Your task to perform on an android device: toggle javascript in the chrome app Image 0: 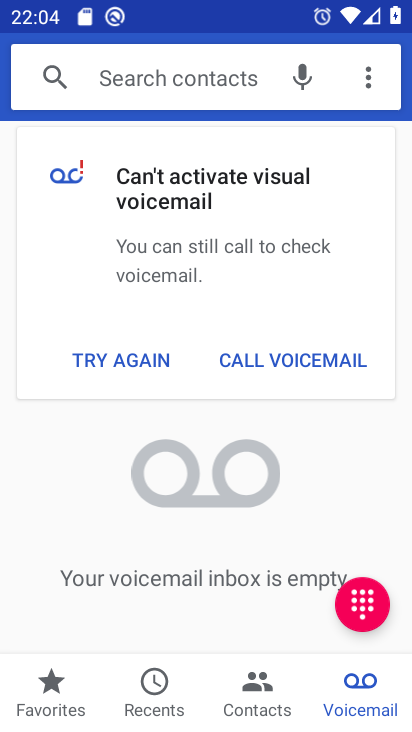
Step 0: press home button
Your task to perform on an android device: toggle javascript in the chrome app Image 1: 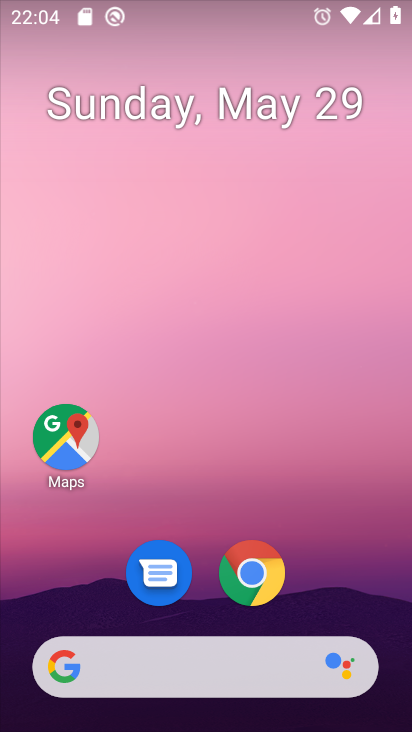
Step 1: click (256, 584)
Your task to perform on an android device: toggle javascript in the chrome app Image 2: 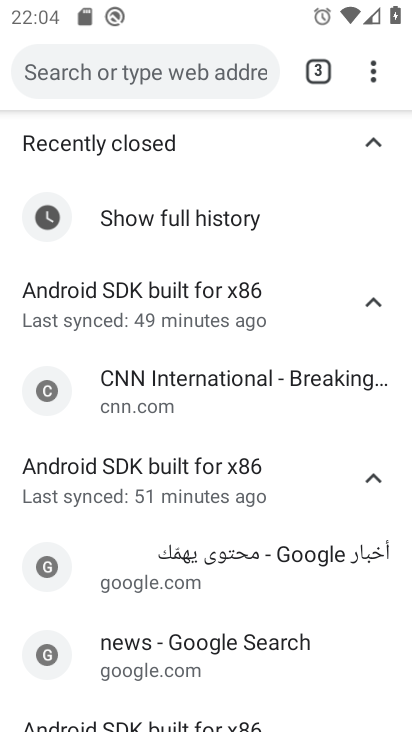
Step 2: click (370, 79)
Your task to perform on an android device: toggle javascript in the chrome app Image 3: 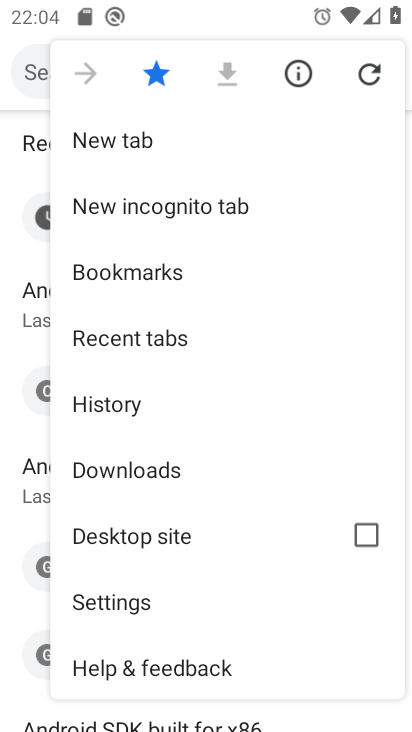
Step 3: click (147, 604)
Your task to perform on an android device: toggle javascript in the chrome app Image 4: 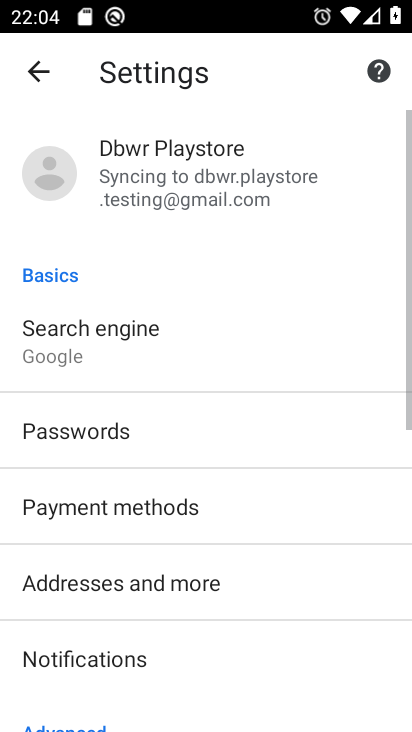
Step 4: drag from (258, 591) to (338, 212)
Your task to perform on an android device: toggle javascript in the chrome app Image 5: 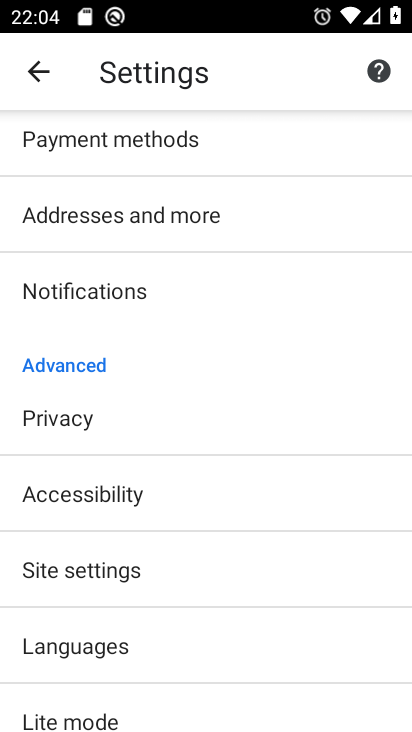
Step 5: click (173, 564)
Your task to perform on an android device: toggle javascript in the chrome app Image 6: 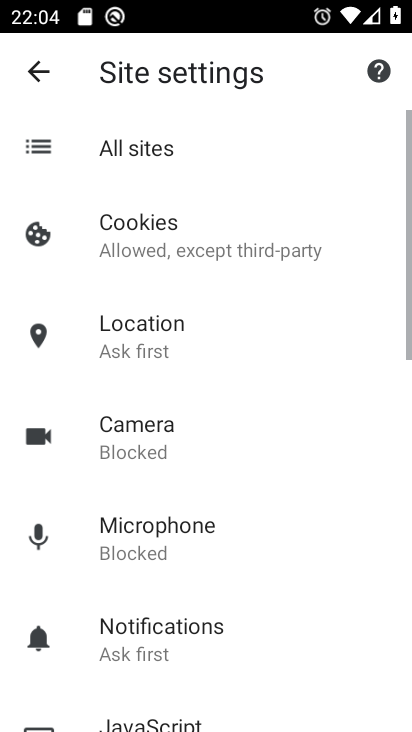
Step 6: drag from (262, 513) to (341, 145)
Your task to perform on an android device: toggle javascript in the chrome app Image 7: 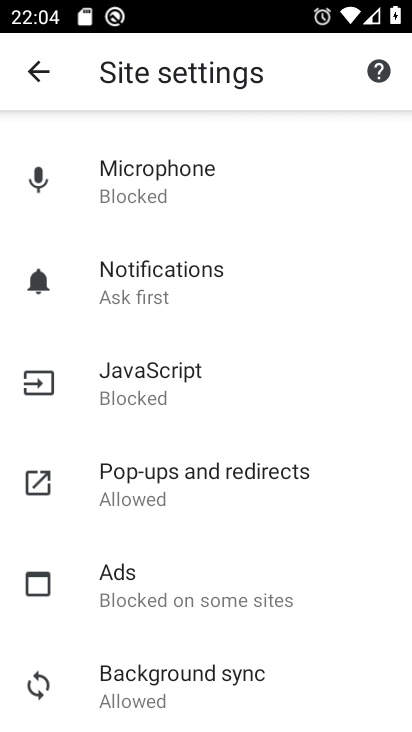
Step 7: click (193, 368)
Your task to perform on an android device: toggle javascript in the chrome app Image 8: 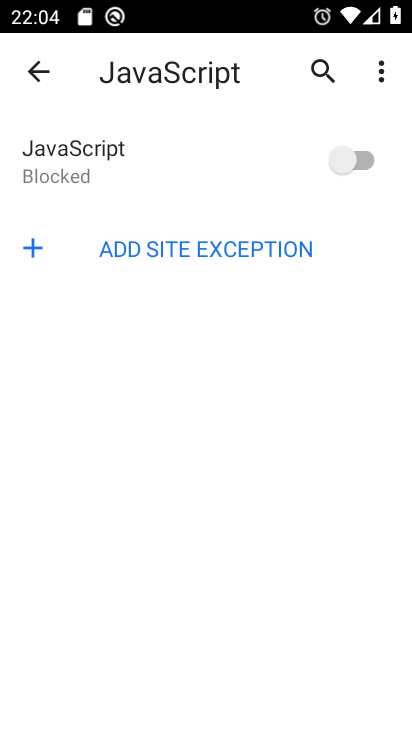
Step 8: click (351, 152)
Your task to perform on an android device: toggle javascript in the chrome app Image 9: 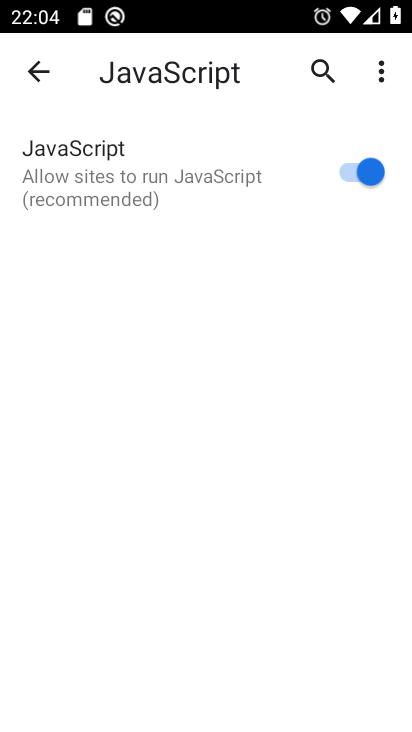
Step 9: task complete